Your task to perform on an android device: View the shopping cart on ebay. Add logitech g903 to the cart on ebay, then select checkout. Image 0: 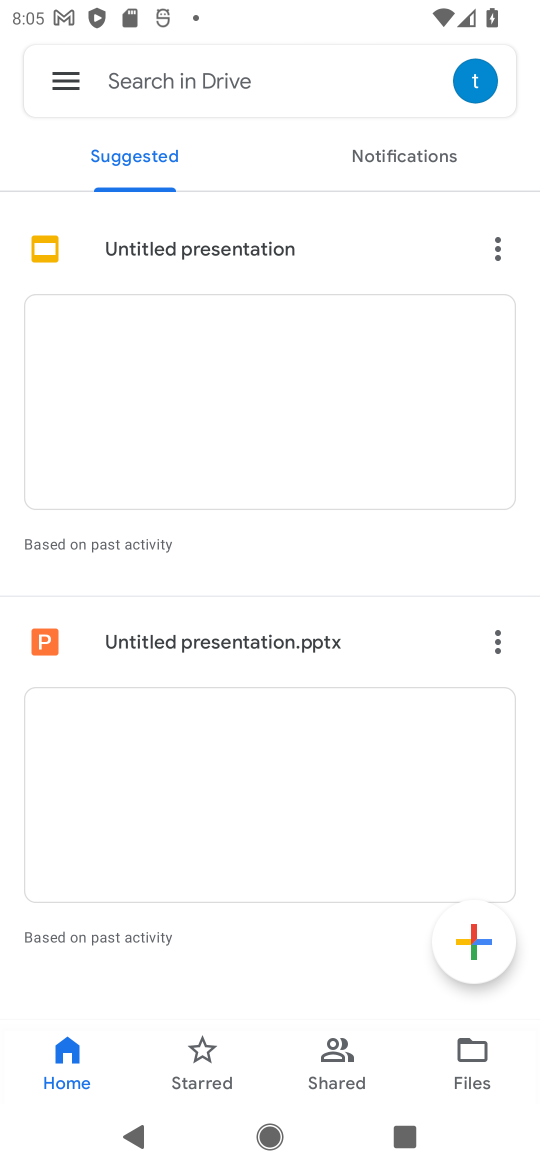
Step 0: press home button
Your task to perform on an android device: View the shopping cart on ebay. Add logitech g903 to the cart on ebay, then select checkout. Image 1: 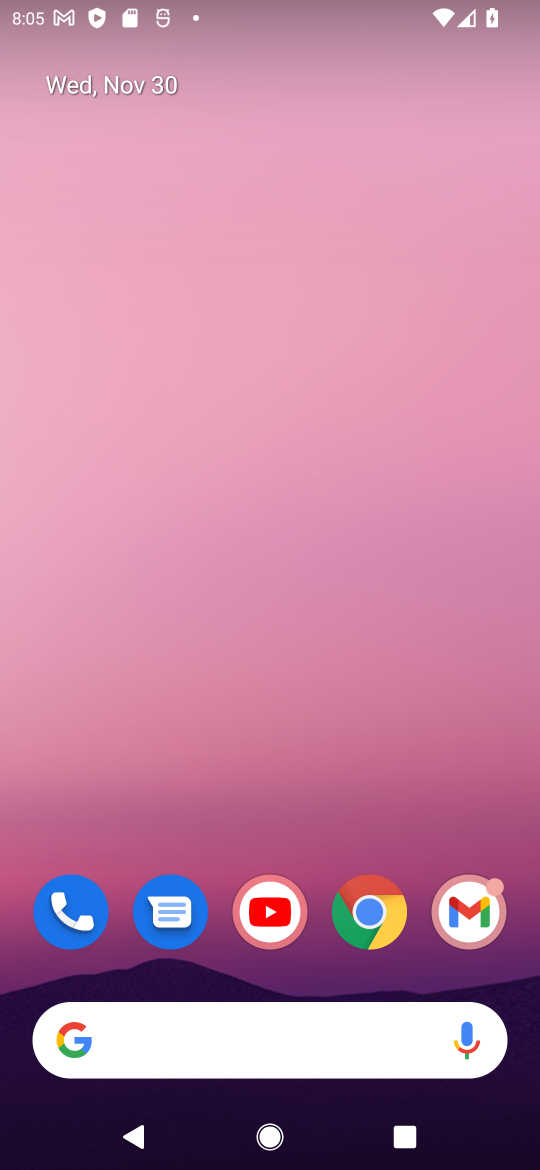
Step 1: click (228, 1033)
Your task to perform on an android device: View the shopping cart on ebay. Add logitech g903 to the cart on ebay, then select checkout. Image 2: 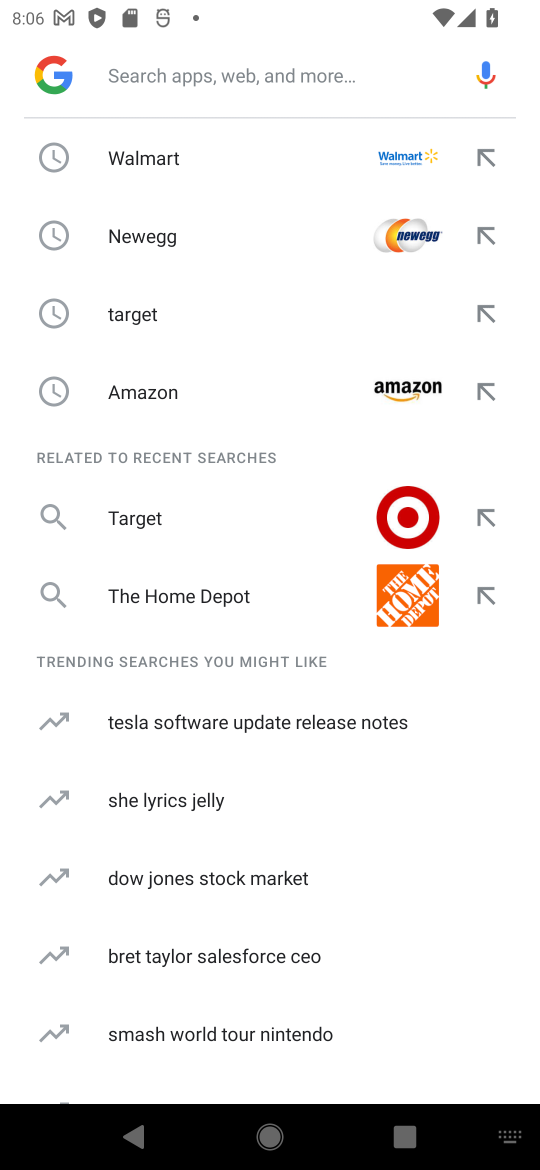
Step 2: type "ebay"
Your task to perform on an android device: View the shopping cart on ebay. Add logitech g903 to the cart on ebay, then select checkout. Image 3: 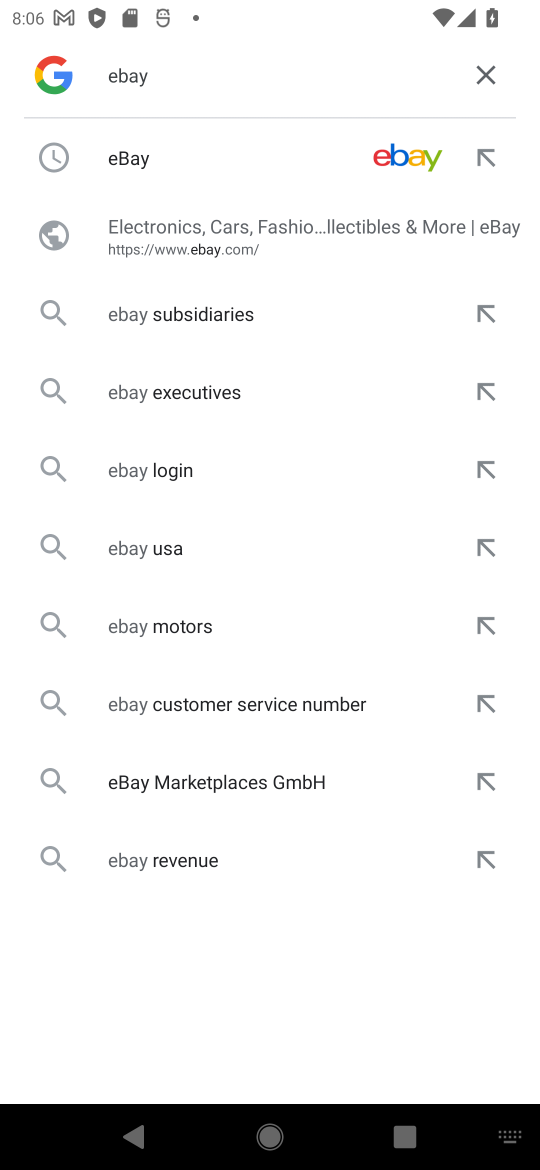
Step 3: click (333, 172)
Your task to perform on an android device: View the shopping cart on ebay. Add logitech g903 to the cart on ebay, then select checkout. Image 4: 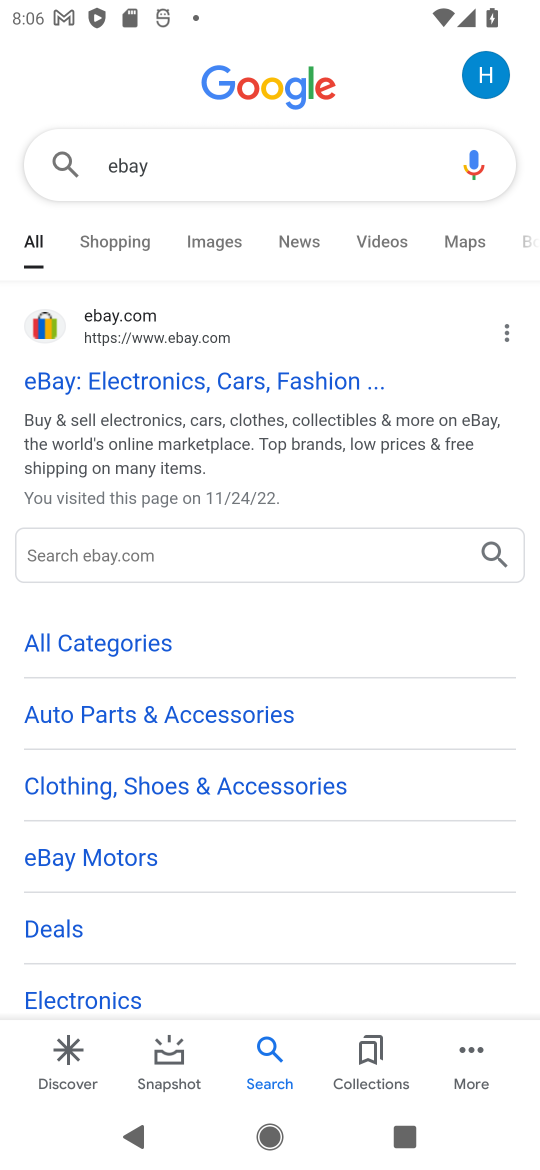
Step 4: click (148, 378)
Your task to perform on an android device: View the shopping cart on ebay. Add logitech g903 to the cart on ebay, then select checkout. Image 5: 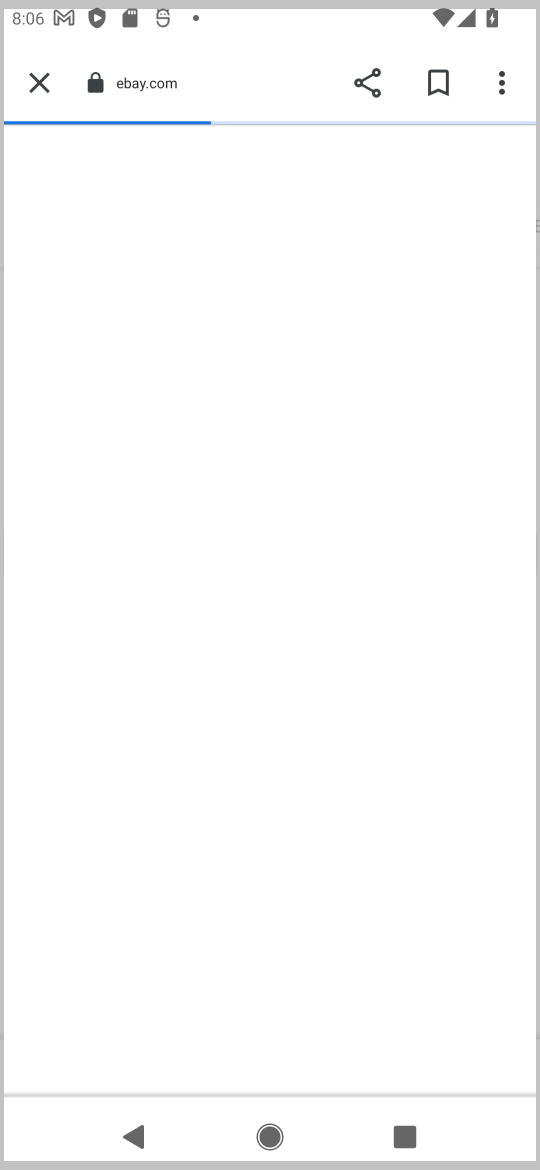
Step 5: click (148, 329)
Your task to perform on an android device: View the shopping cart on ebay. Add logitech g903 to the cart on ebay, then select checkout. Image 6: 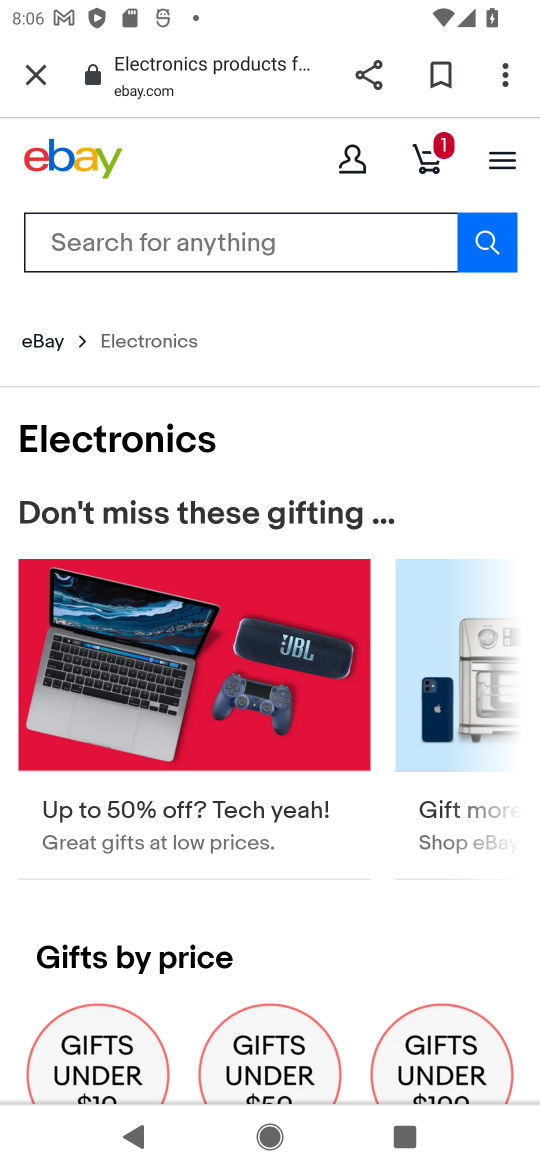
Step 6: click (430, 158)
Your task to perform on an android device: View the shopping cart on ebay. Add logitech g903 to the cart on ebay, then select checkout. Image 7: 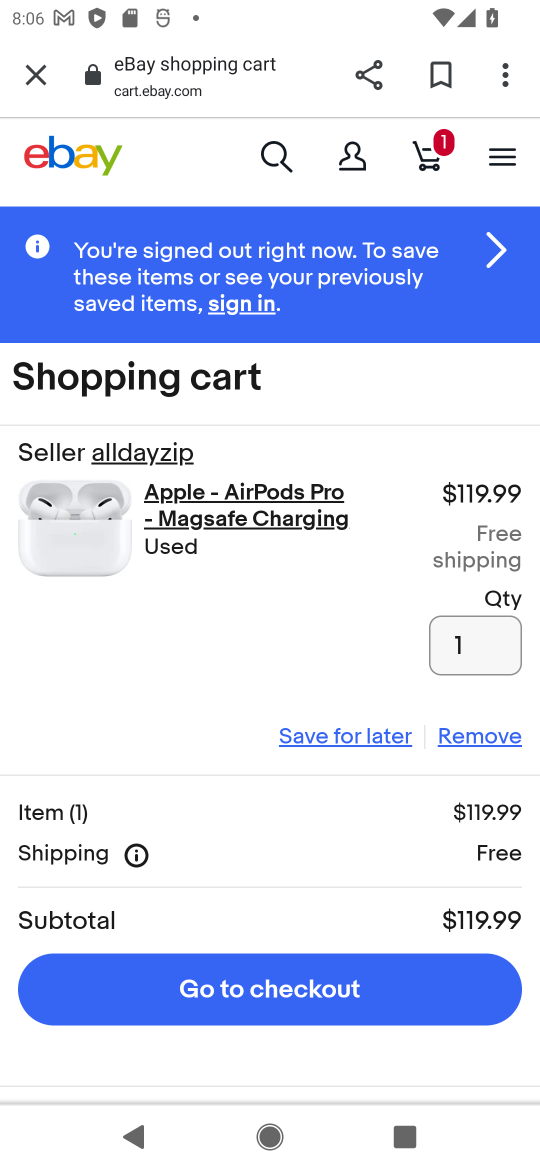
Step 7: click (268, 155)
Your task to perform on an android device: View the shopping cart on ebay. Add logitech g903 to the cart on ebay, then select checkout. Image 8: 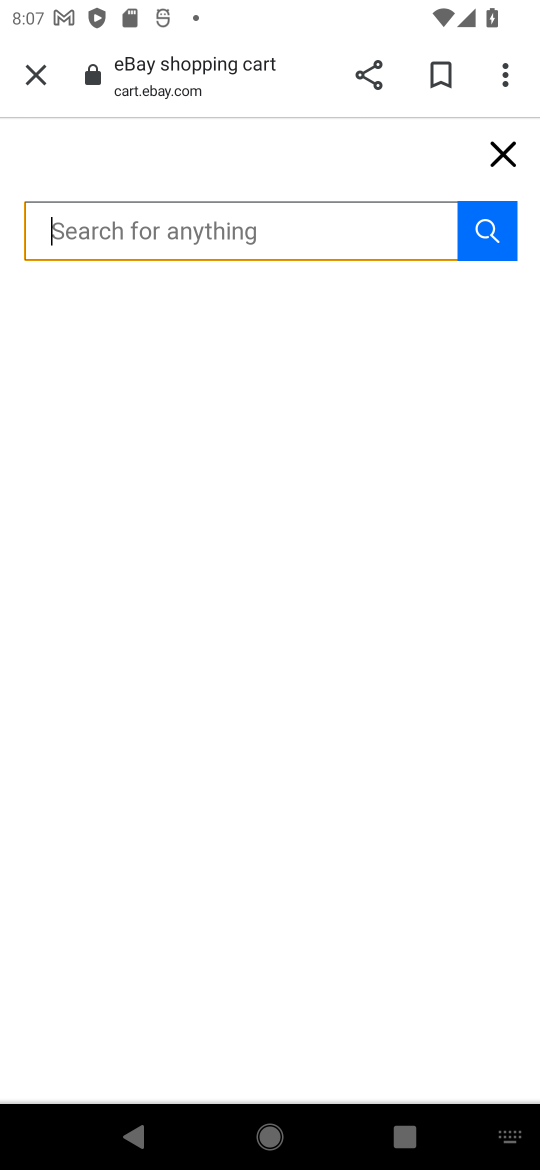
Step 8: type " logitech g903"
Your task to perform on an android device: View the shopping cart on ebay. Add logitech g903 to the cart on ebay, then select checkout. Image 9: 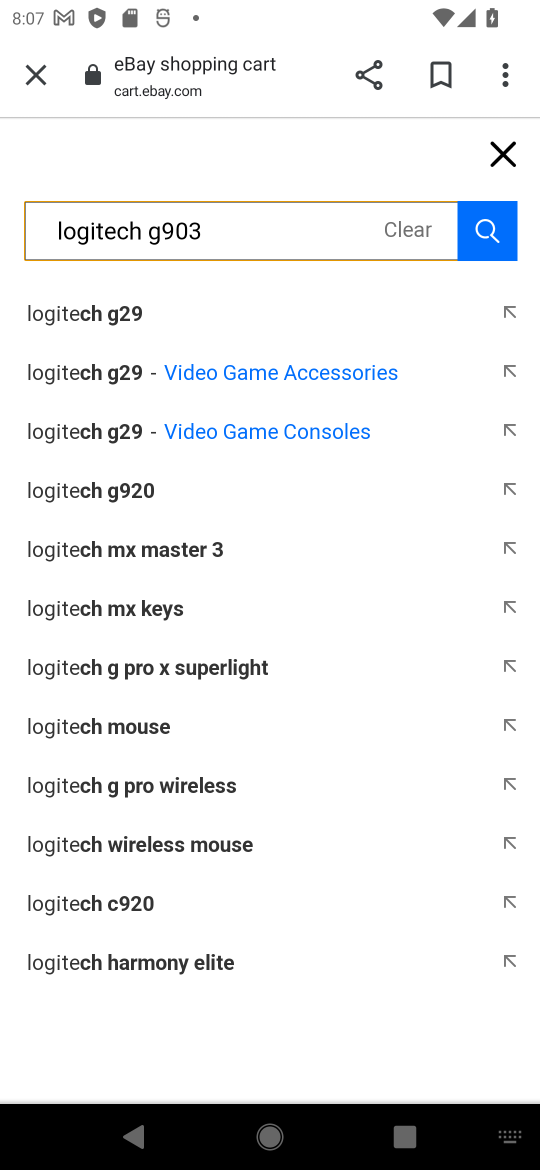
Step 9: click (488, 227)
Your task to perform on an android device: View the shopping cart on ebay. Add logitech g903 to the cart on ebay, then select checkout. Image 10: 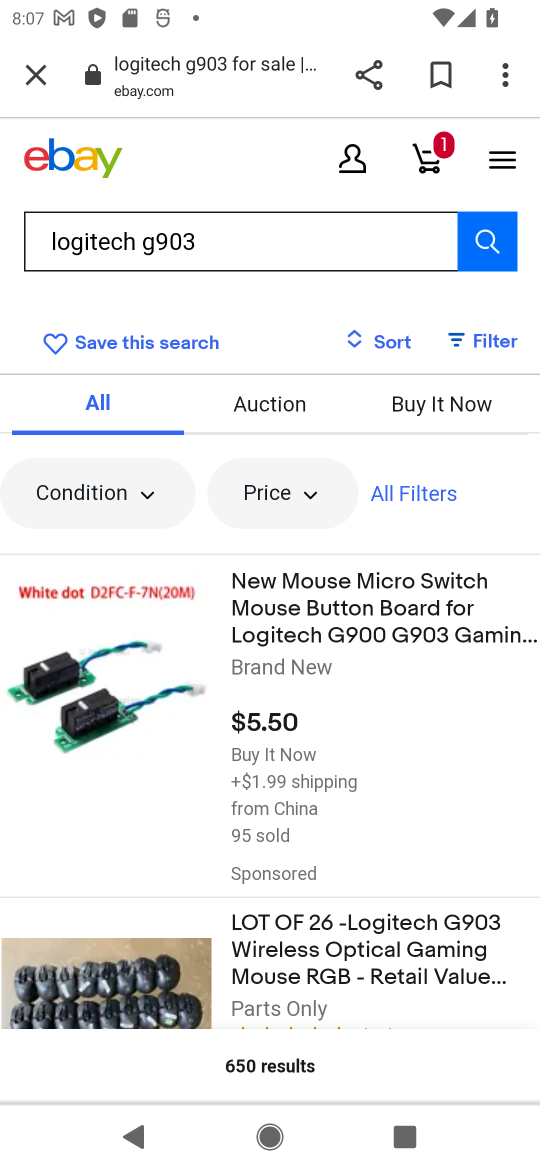
Step 10: click (321, 625)
Your task to perform on an android device: View the shopping cart on ebay. Add logitech g903 to the cart on ebay, then select checkout. Image 11: 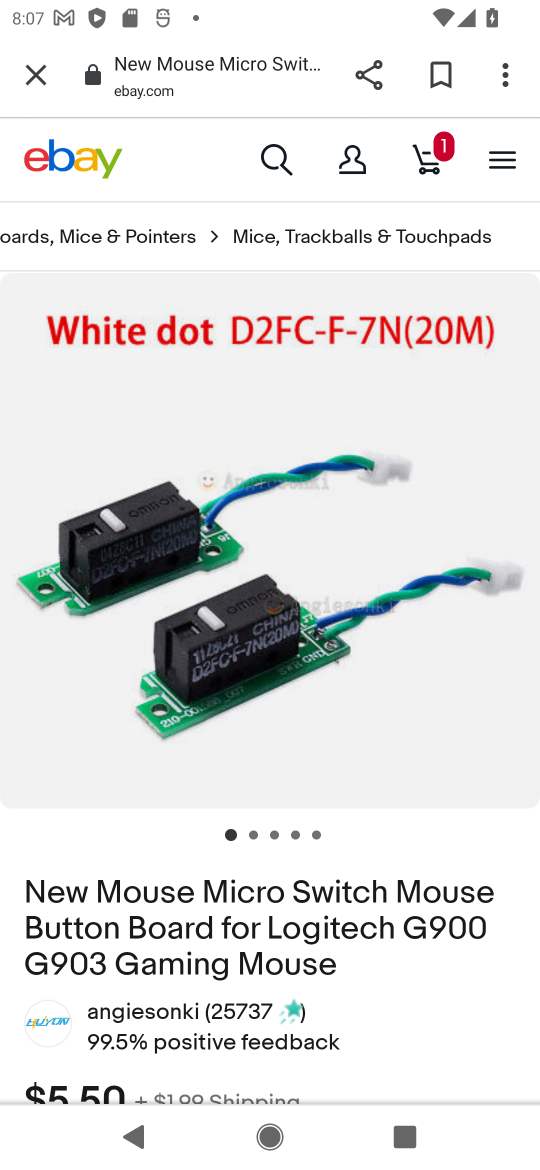
Step 11: drag from (284, 846) to (312, 581)
Your task to perform on an android device: View the shopping cart on ebay. Add logitech g903 to the cart on ebay, then select checkout. Image 12: 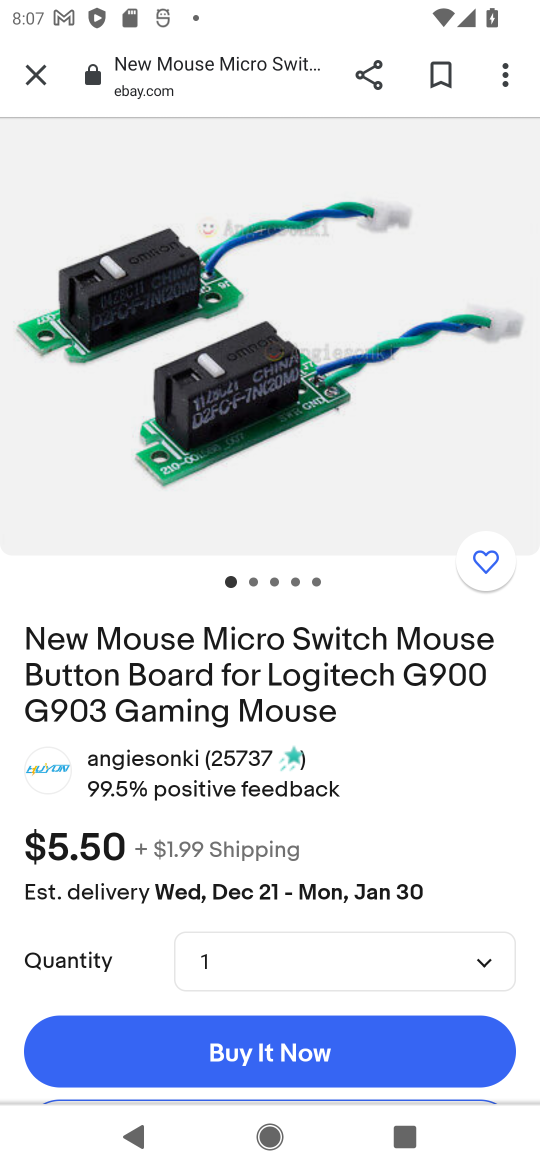
Step 12: drag from (289, 889) to (265, 612)
Your task to perform on an android device: View the shopping cart on ebay. Add logitech g903 to the cart on ebay, then select checkout. Image 13: 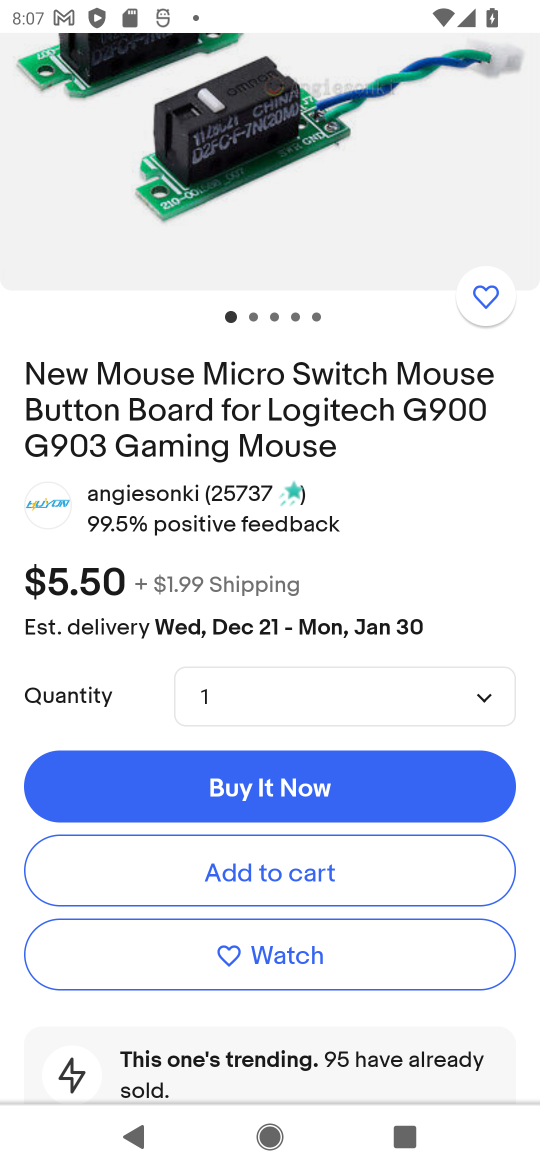
Step 13: click (259, 873)
Your task to perform on an android device: View the shopping cart on ebay. Add logitech g903 to the cart on ebay, then select checkout. Image 14: 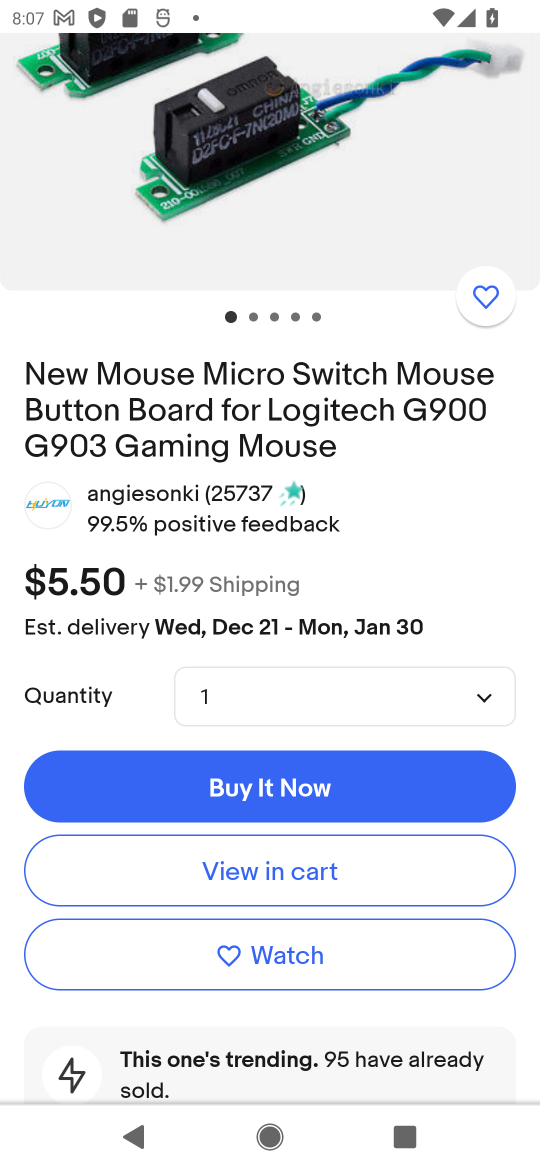
Step 14: click (259, 873)
Your task to perform on an android device: View the shopping cart on ebay. Add logitech g903 to the cart on ebay, then select checkout. Image 15: 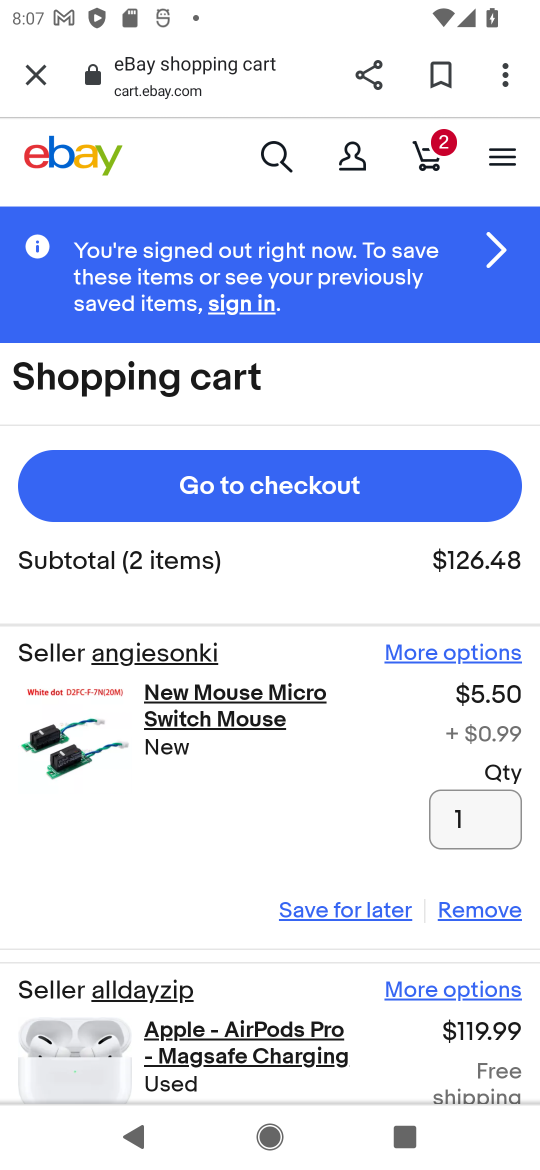
Step 15: click (285, 484)
Your task to perform on an android device: View the shopping cart on ebay. Add logitech g903 to the cart on ebay, then select checkout. Image 16: 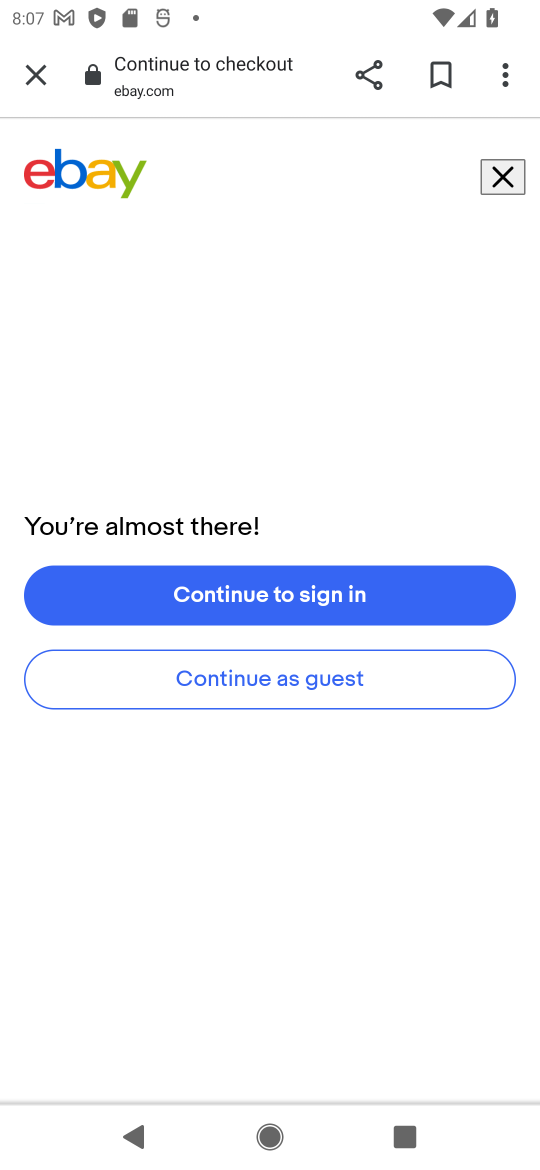
Step 16: task complete